Your task to perform on an android device: change notification settings in the gmail app Image 0: 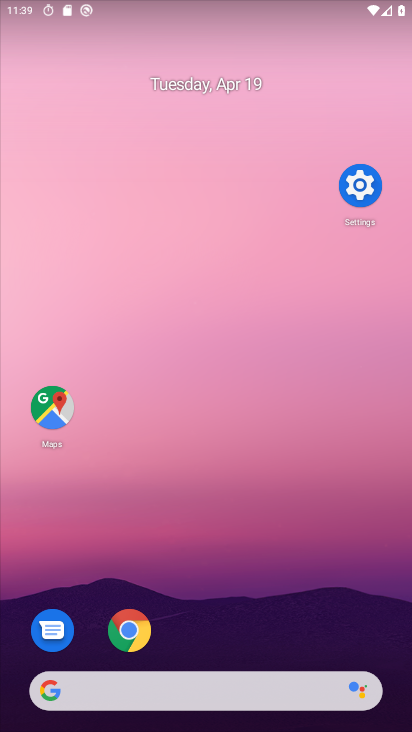
Step 0: drag from (278, 306) to (278, 217)
Your task to perform on an android device: change notification settings in the gmail app Image 1: 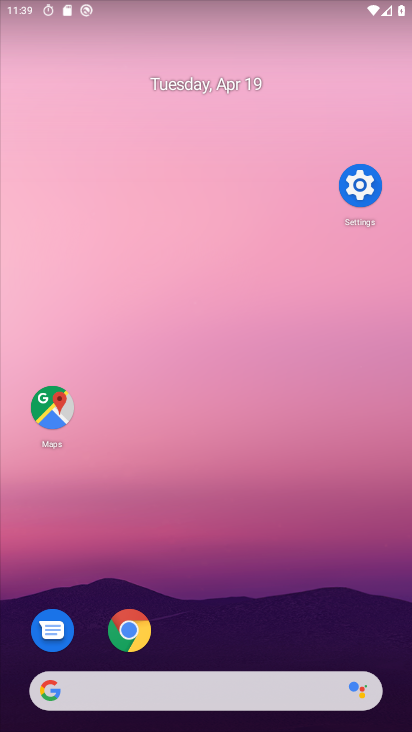
Step 1: drag from (251, 643) to (309, 3)
Your task to perform on an android device: change notification settings in the gmail app Image 2: 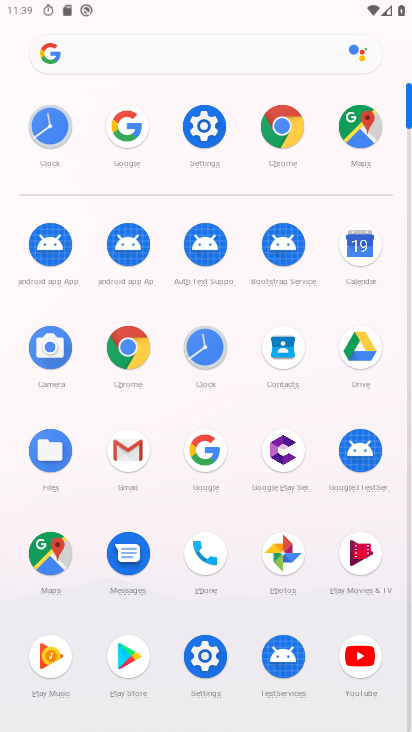
Step 2: click (136, 458)
Your task to perform on an android device: change notification settings in the gmail app Image 3: 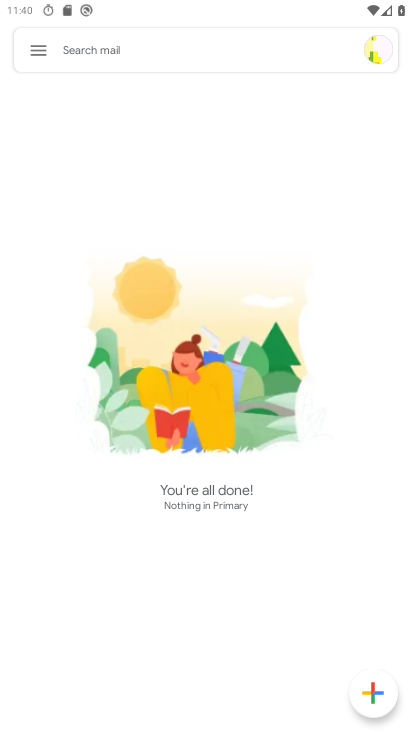
Step 3: click (46, 59)
Your task to perform on an android device: change notification settings in the gmail app Image 4: 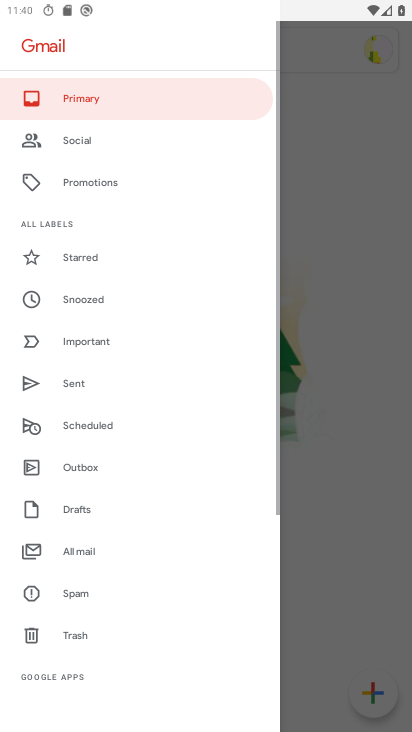
Step 4: drag from (108, 605) to (162, 253)
Your task to perform on an android device: change notification settings in the gmail app Image 5: 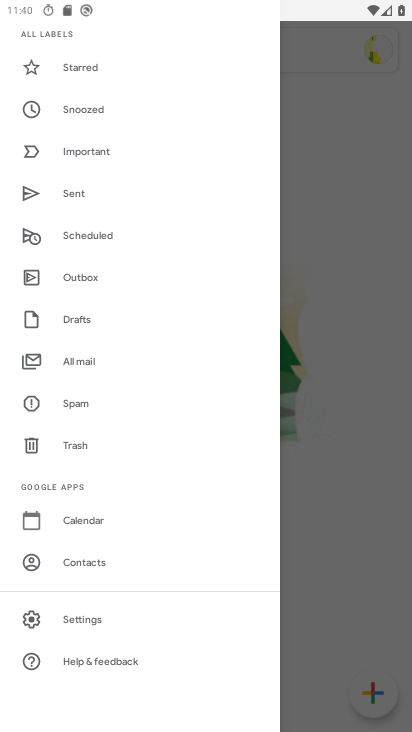
Step 5: click (130, 607)
Your task to perform on an android device: change notification settings in the gmail app Image 6: 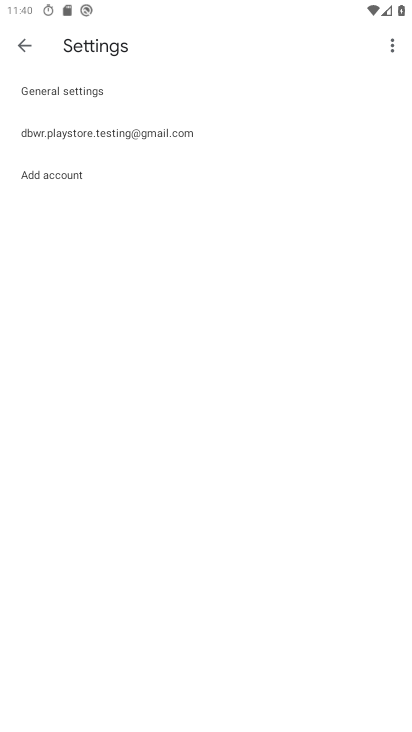
Step 6: click (134, 94)
Your task to perform on an android device: change notification settings in the gmail app Image 7: 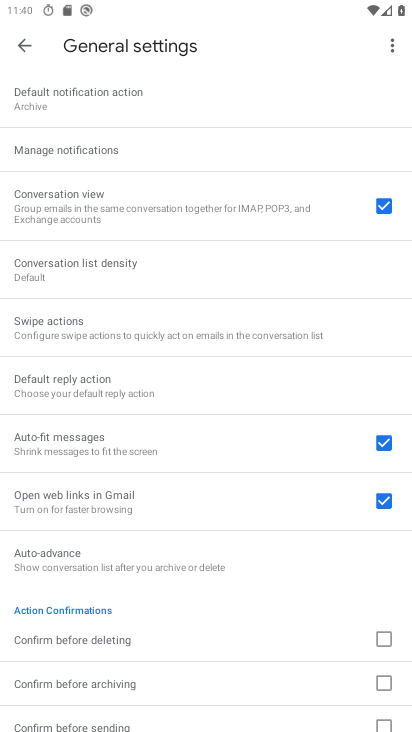
Step 7: click (161, 143)
Your task to perform on an android device: change notification settings in the gmail app Image 8: 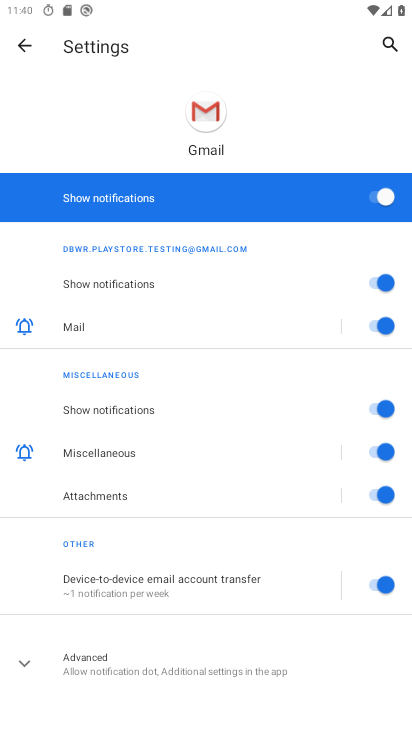
Step 8: click (382, 196)
Your task to perform on an android device: change notification settings in the gmail app Image 9: 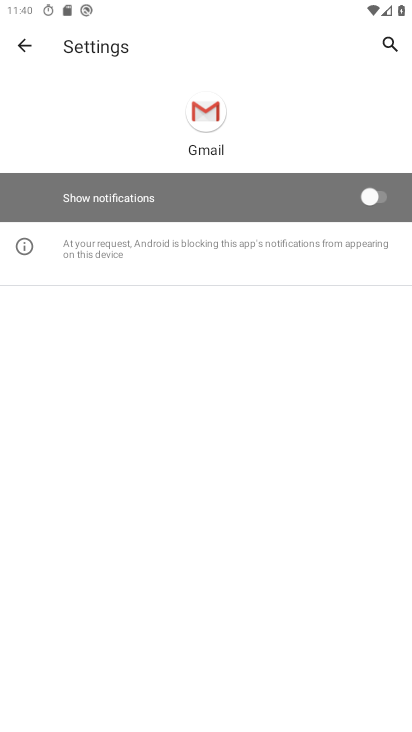
Step 9: task complete